Your task to perform on an android device: clear history in the chrome app Image 0: 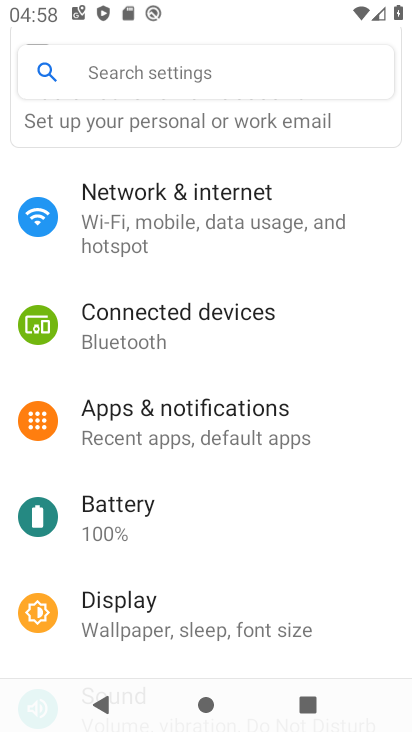
Step 0: press home button
Your task to perform on an android device: clear history in the chrome app Image 1: 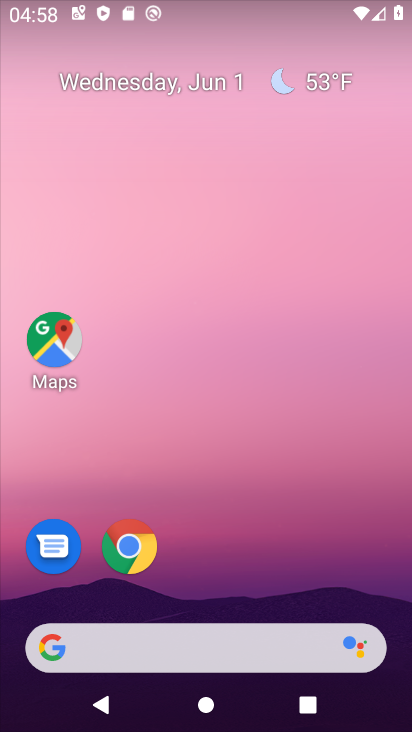
Step 1: click (278, 499)
Your task to perform on an android device: clear history in the chrome app Image 2: 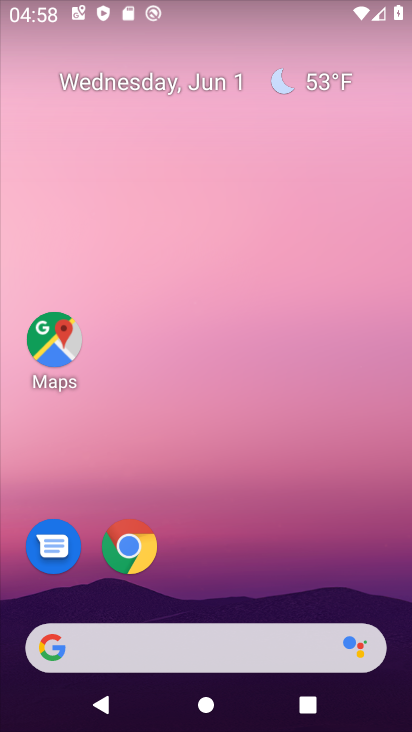
Step 2: click (132, 540)
Your task to perform on an android device: clear history in the chrome app Image 3: 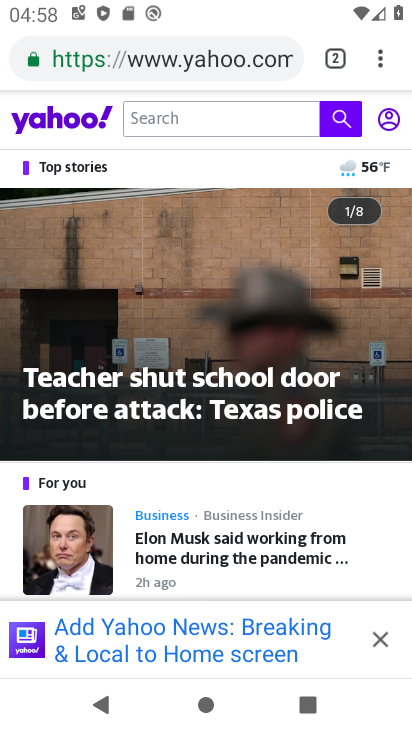
Step 3: click (380, 65)
Your task to perform on an android device: clear history in the chrome app Image 4: 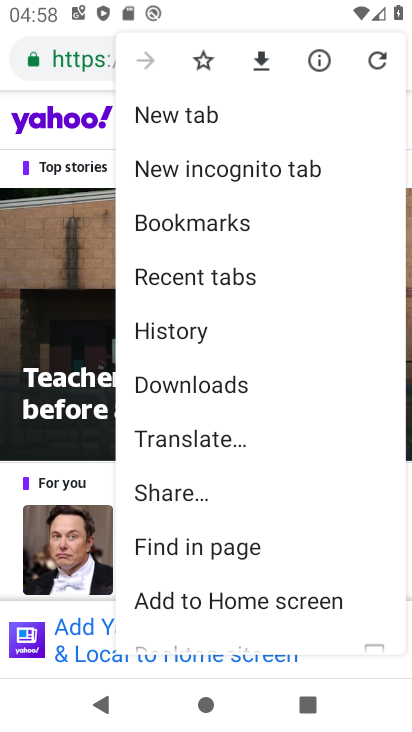
Step 4: click (176, 327)
Your task to perform on an android device: clear history in the chrome app Image 5: 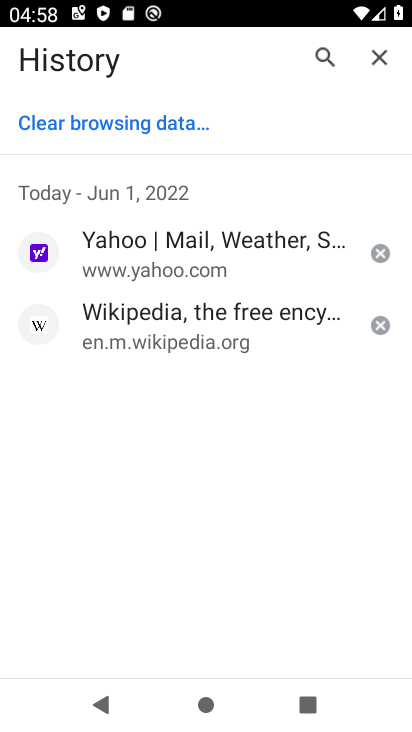
Step 5: click (108, 124)
Your task to perform on an android device: clear history in the chrome app Image 6: 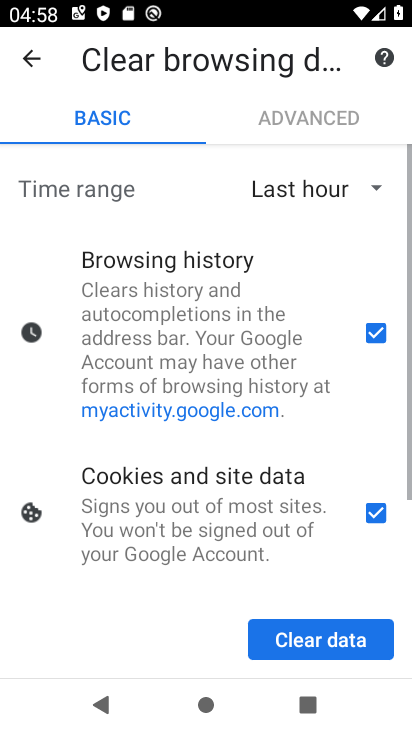
Step 6: click (325, 644)
Your task to perform on an android device: clear history in the chrome app Image 7: 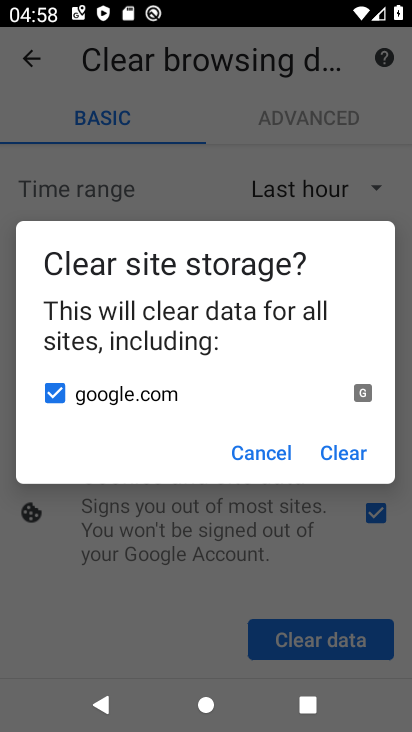
Step 7: click (338, 457)
Your task to perform on an android device: clear history in the chrome app Image 8: 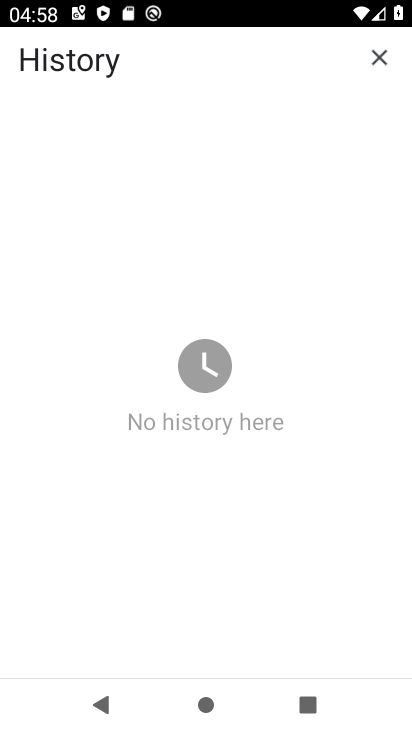
Step 8: task complete